Your task to perform on an android device: show emergency info Image 0: 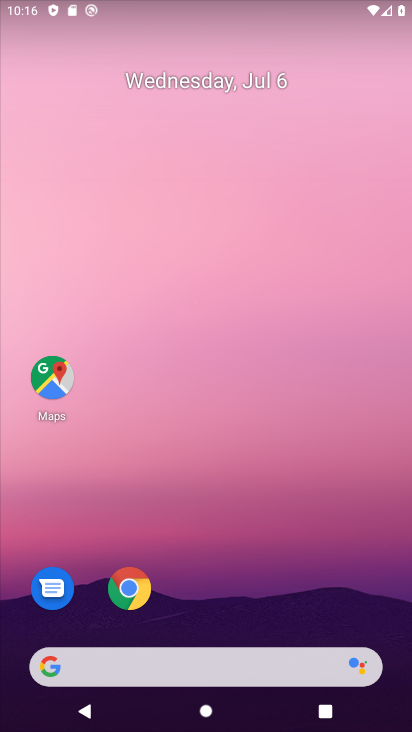
Step 0: drag from (173, 632) to (350, 118)
Your task to perform on an android device: show emergency info Image 1: 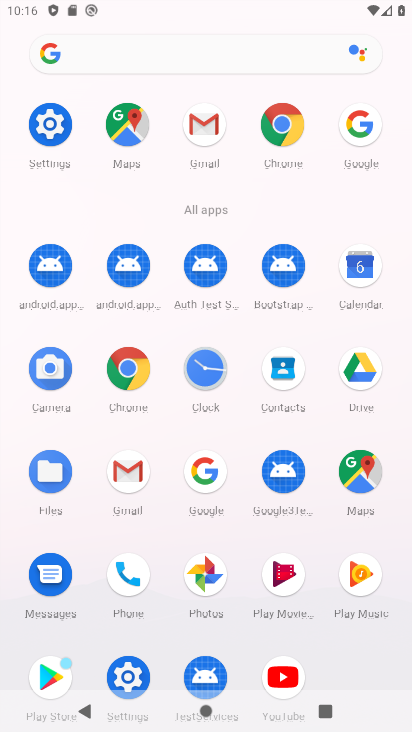
Step 1: click (54, 119)
Your task to perform on an android device: show emergency info Image 2: 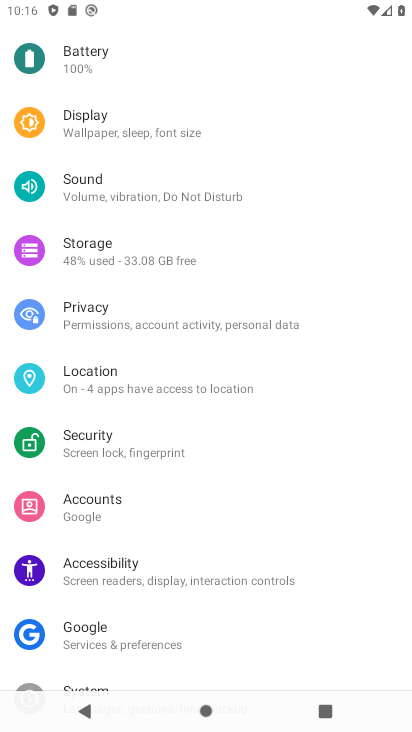
Step 2: drag from (134, 628) to (311, 119)
Your task to perform on an android device: show emergency info Image 3: 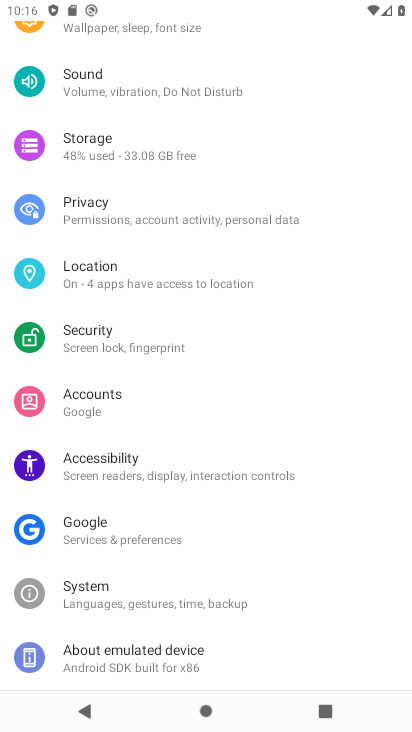
Step 3: click (158, 655)
Your task to perform on an android device: show emergency info Image 4: 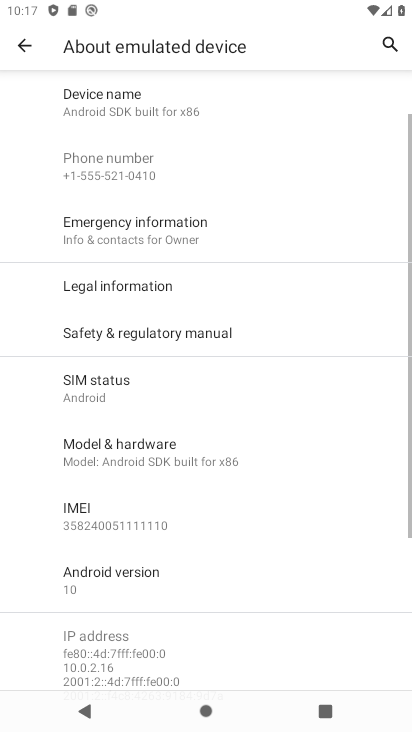
Step 4: click (168, 234)
Your task to perform on an android device: show emergency info Image 5: 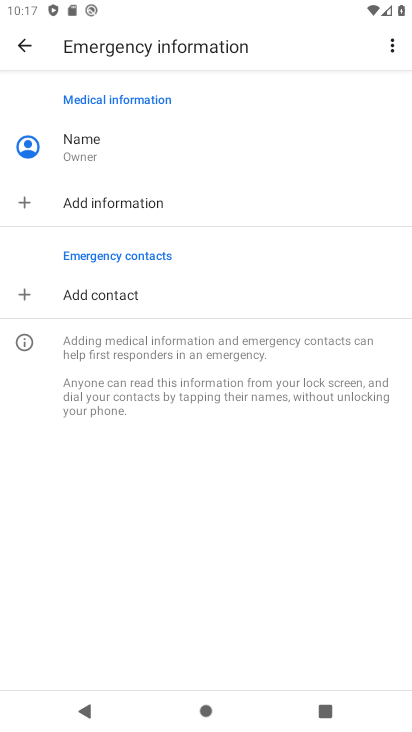
Step 5: task complete